Your task to perform on an android device: Open the calendar and show me this week's events? Image 0: 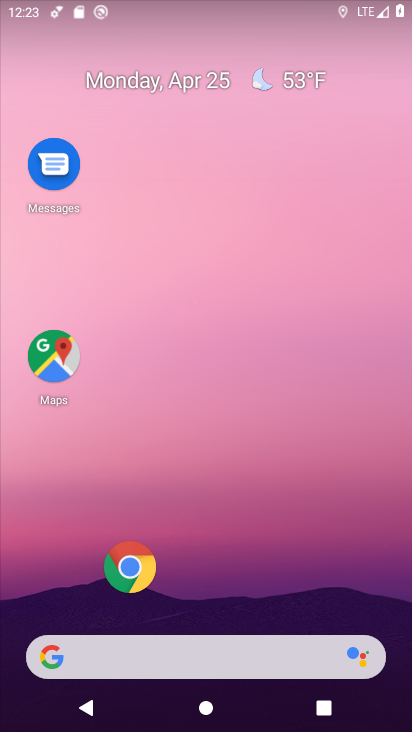
Step 0: drag from (277, 518) to (282, 79)
Your task to perform on an android device: Open the calendar and show me this week's events? Image 1: 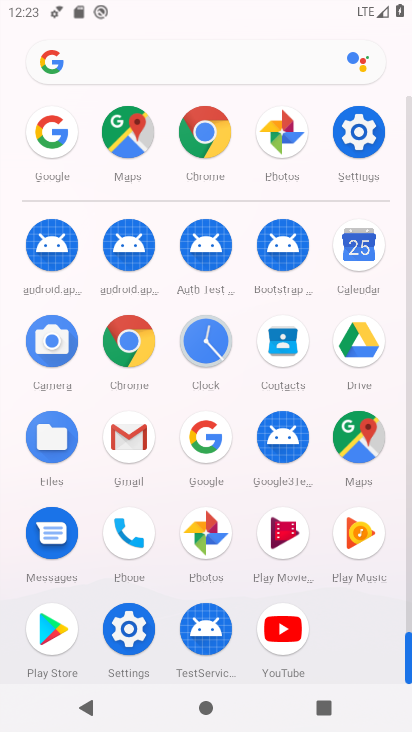
Step 1: click (374, 260)
Your task to perform on an android device: Open the calendar and show me this week's events? Image 2: 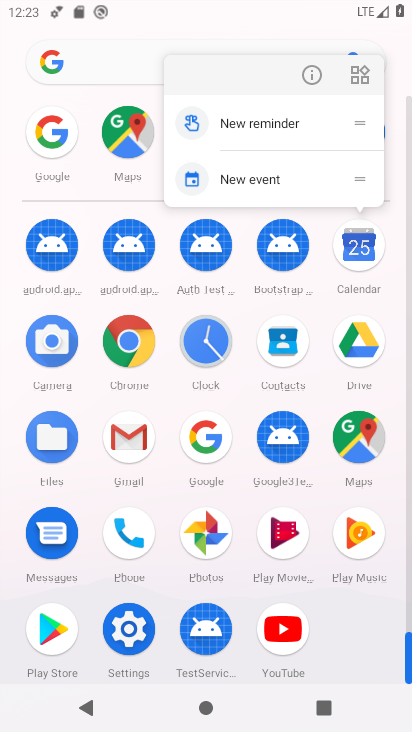
Step 2: click (374, 256)
Your task to perform on an android device: Open the calendar and show me this week's events? Image 3: 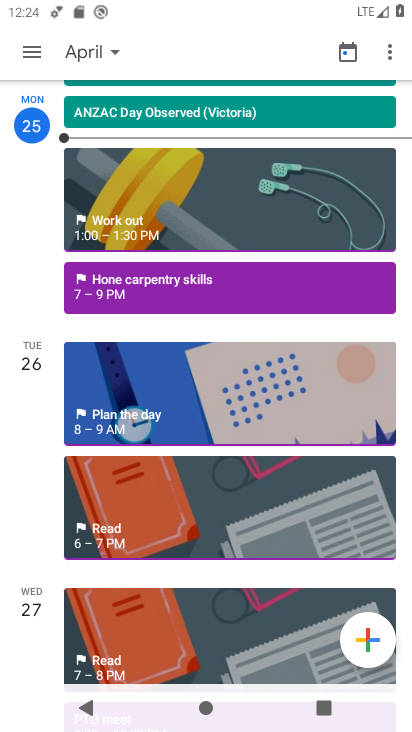
Step 3: click (103, 64)
Your task to perform on an android device: Open the calendar and show me this week's events? Image 4: 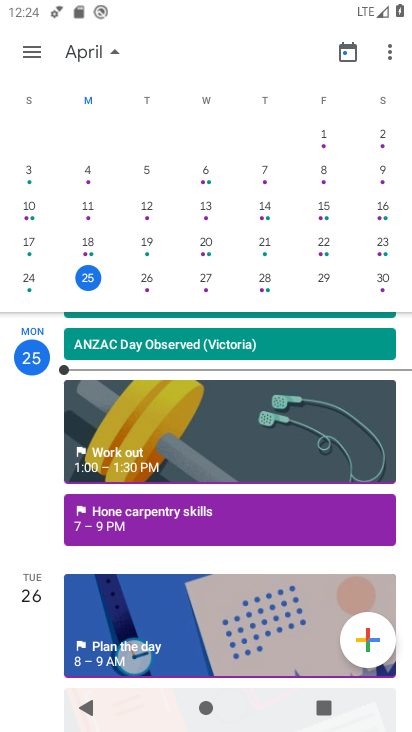
Step 4: task complete